Your task to perform on an android device: check storage Image 0: 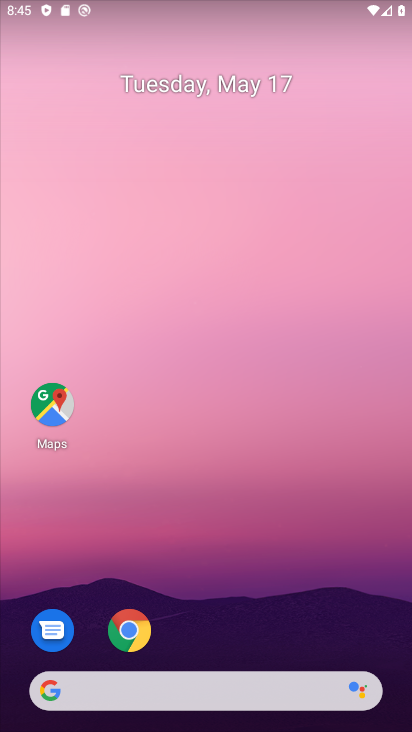
Step 0: drag from (371, 591) to (376, 88)
Your task to perform on an android device: check storage Image 1: 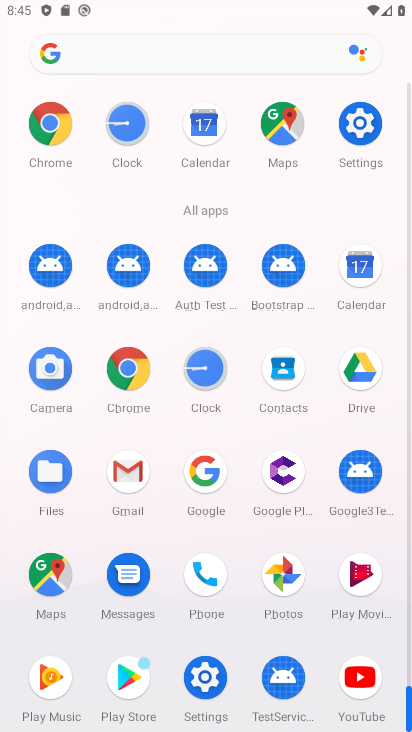
Step 1: click (359, 128)
Your task to perform on an android device: check storage Image 2: 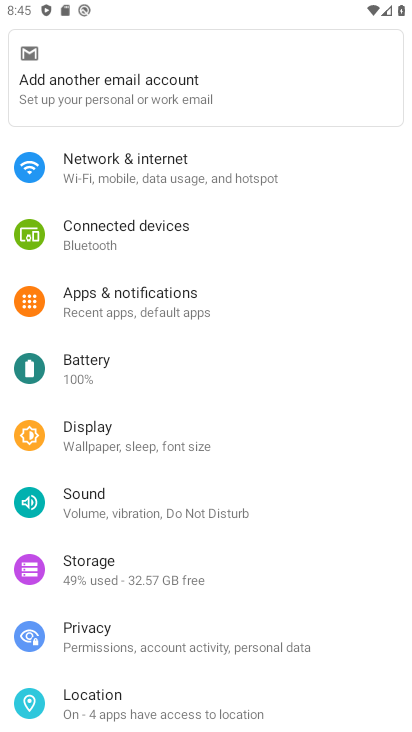
Step 2: drag from (355, 618) to (364, 427)
Your task to perform on an android device: check storage Image 3: 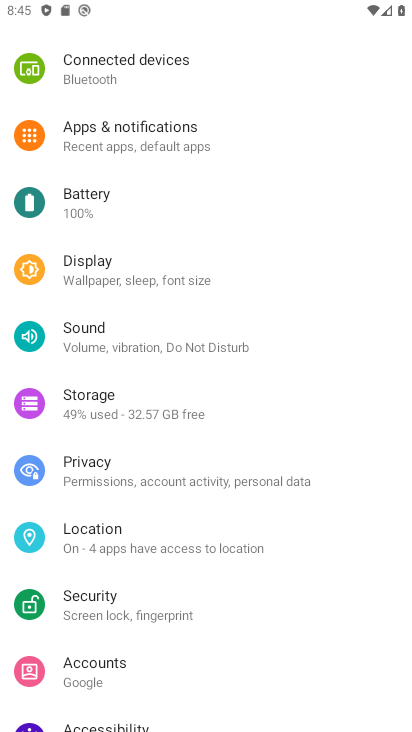
Step 3: drag from (341, 646) to (356, 485)
Your task to perform on an android device: check storage Image 4: 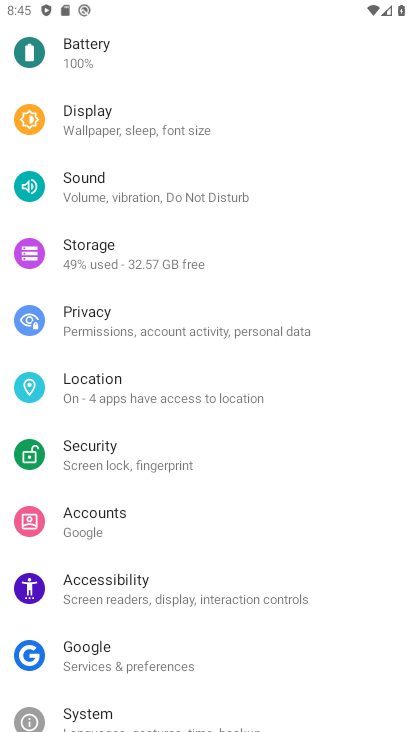
Step 4: drag from (330, 659) to (338, 496)
Your task to perform on an android device: check storage Image 5: 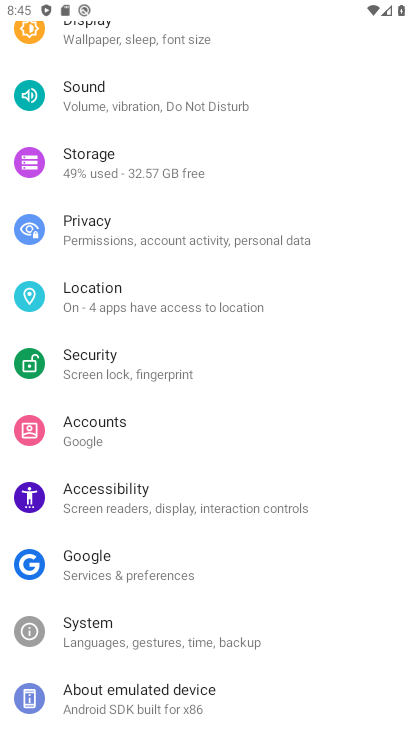
Step 5: drag from (332, 633) to (358, 423)
Your task to perform on an android device: check storage Image 6: 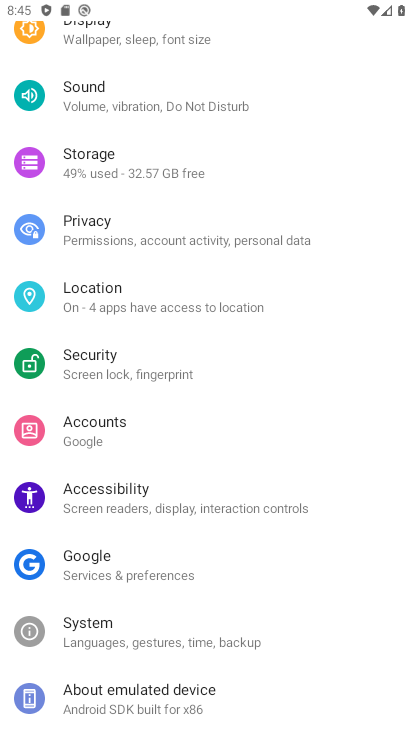
Step 6: click (160, 170)
Your task to perform on an android device: check storage Image 7: 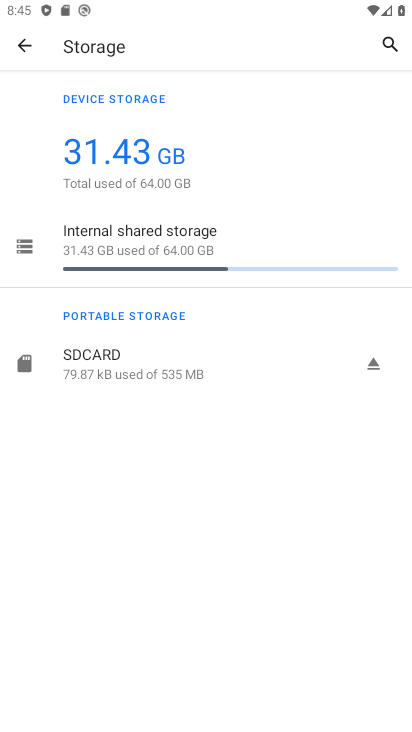
Step 7: task complete